Your task to perform on an android device: choose inbox layout in the gmail app Image 0: 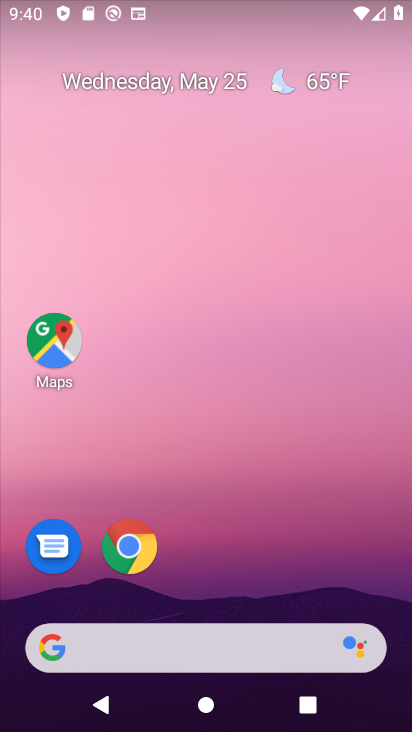
Step 0: drag from (290, 536) to (206, 43)
Your task to perform on an android device: choose inbox layout in the gmail app Image 1: 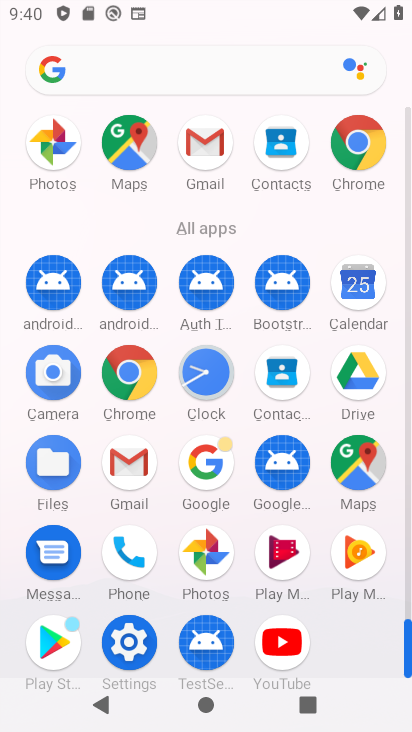
Step 1: drag from (3, 623) to (24, 301)
Your task to perform on an android device: choose inbox layout in the gmail app Image 2: 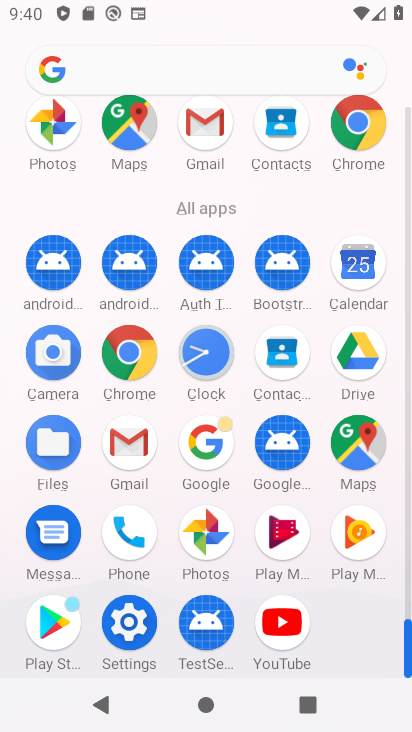
Step 2: click (124, 441)
Your task to perform on an android device: choose inbox layout in the gmail app Image 3: 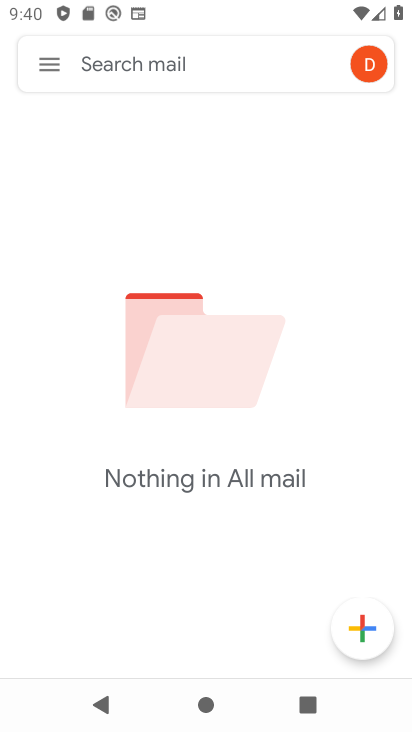
Step 3: click (53, 60)
Your task to perform on an android device: choose inbox layout in the gmail app Image 4: 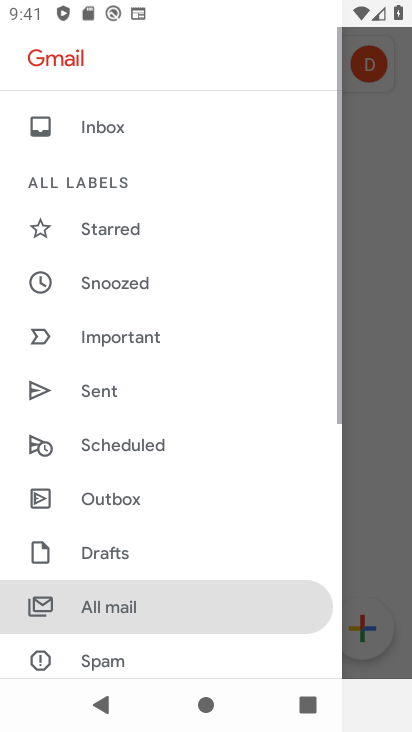
Step 4: drag from (144, 665) to (162, 181)
Your task to perform on an android device: choose inbox layout in the gmail app Image 5: 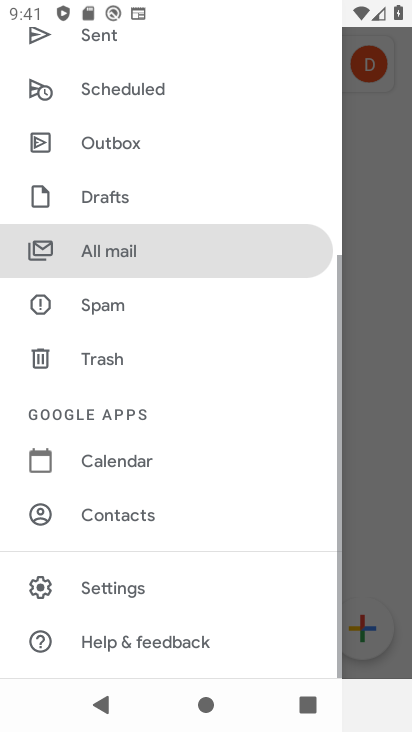
Step 5: click (115, 591)
Your task to perform on an android device: choose inbox layout in the gmail app Image 6: 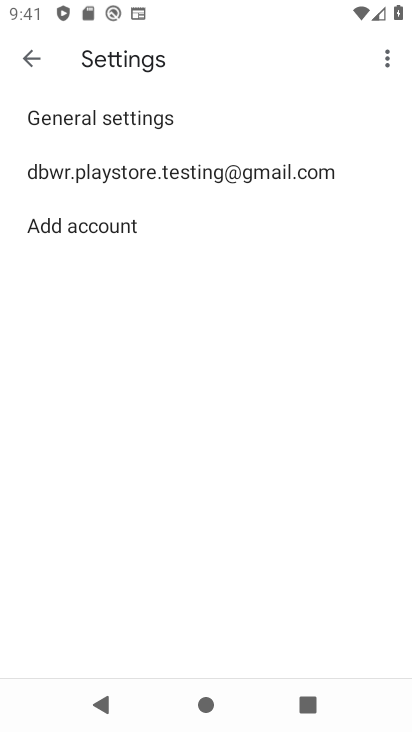
Step 6: click (160, 168)
Your task to perform on an android device: choose inbox layout in the gmail app Image 7: 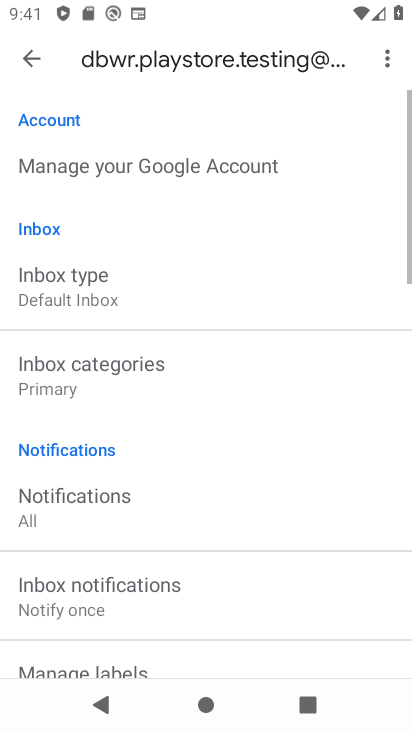
Step 7: drag from (222, 580) to (234, 196)
Your task to perform on an android device: choose inbox layout in the gmail app Image 8: 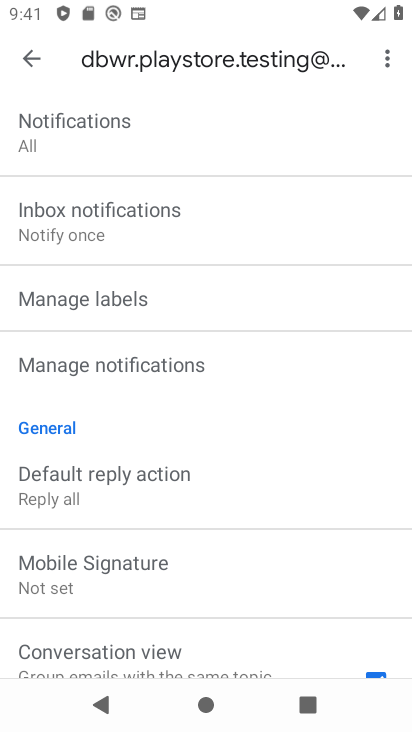
Step 8: drag from (243, 244) to (244, 622)
Your task to perform on an android device: choose inbox layout in the gmail app Image 9: 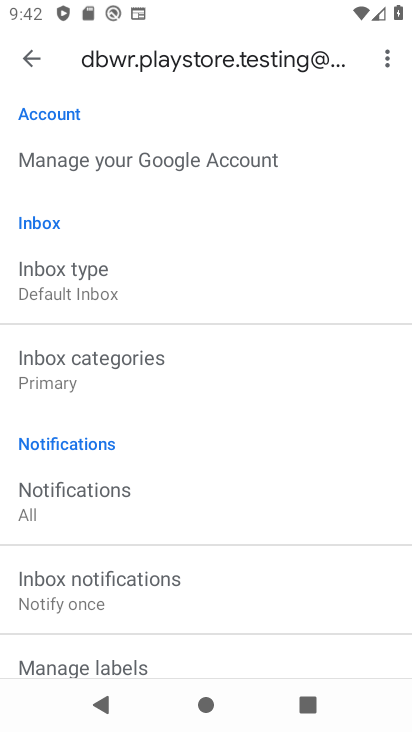
Step 9: click (117, 278)
Your task to perform on an android device: choose inbox layout in the gmail app Image 10: 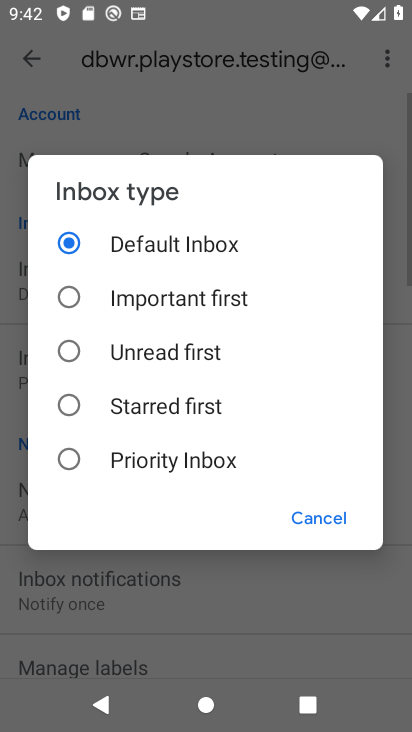
Step 10: click (156, 235)
Your task to perform on an android device: choose inbox layout in the gmail app Image 11: 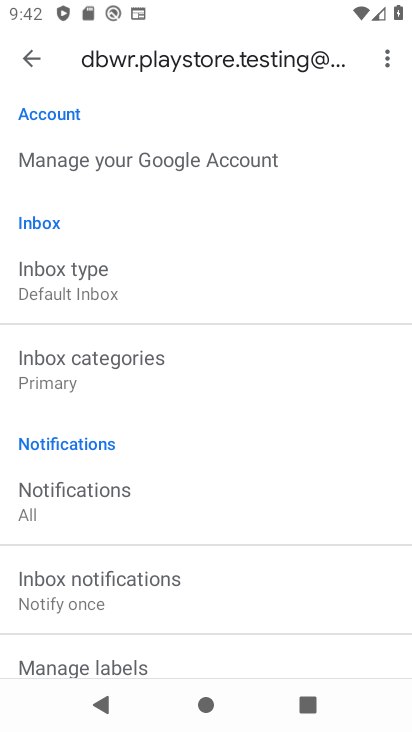
Step 11: task complete